Your task to perform on an android device: open app "Speedtest by Ookla" (install if not already installed) and go to login screen Image 0: 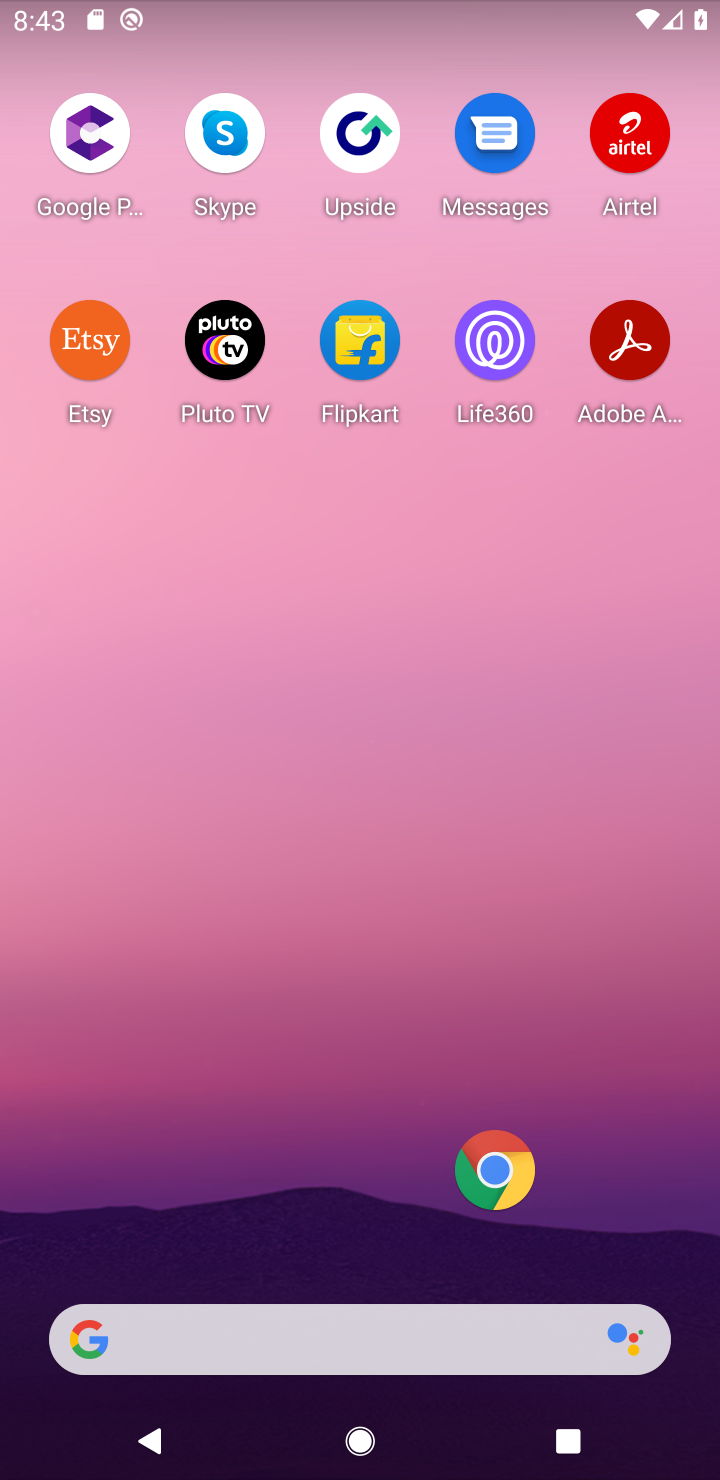
Step 0: drag from (286, 1223) to (474, 113)
Your task to perform on an android device: open app "Speedtest by Ookla" (install if not already installed) and go to login screen Image 1: 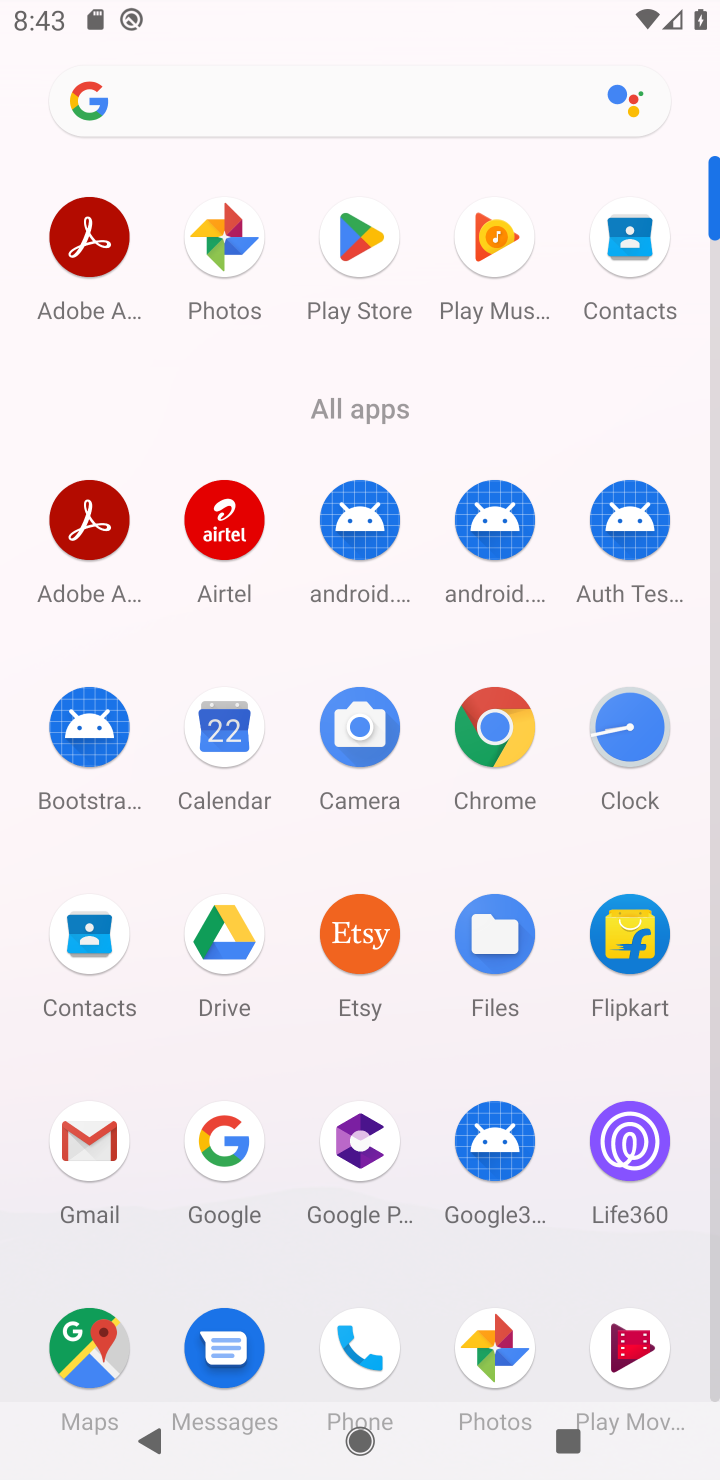
Step 1: click (364, 245)
Your task to perform on an android device: open app "Speedtest by Ookla" (install if not already installed) and go to login screen Image 2: 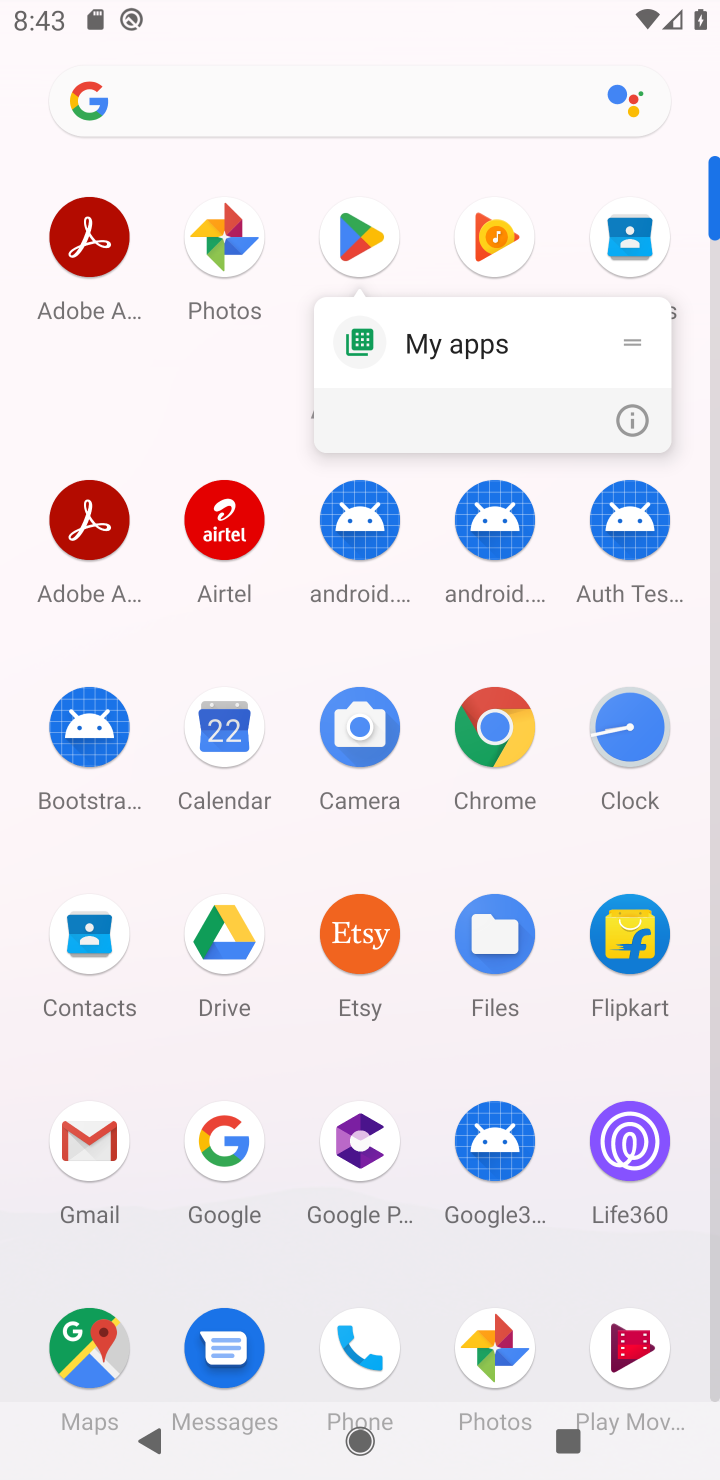
Step 2: click (362, 213)
Your task to perform on an android device: open app "Speedtest by Ookla" (install if not already installed) and go to login screen Image 3: 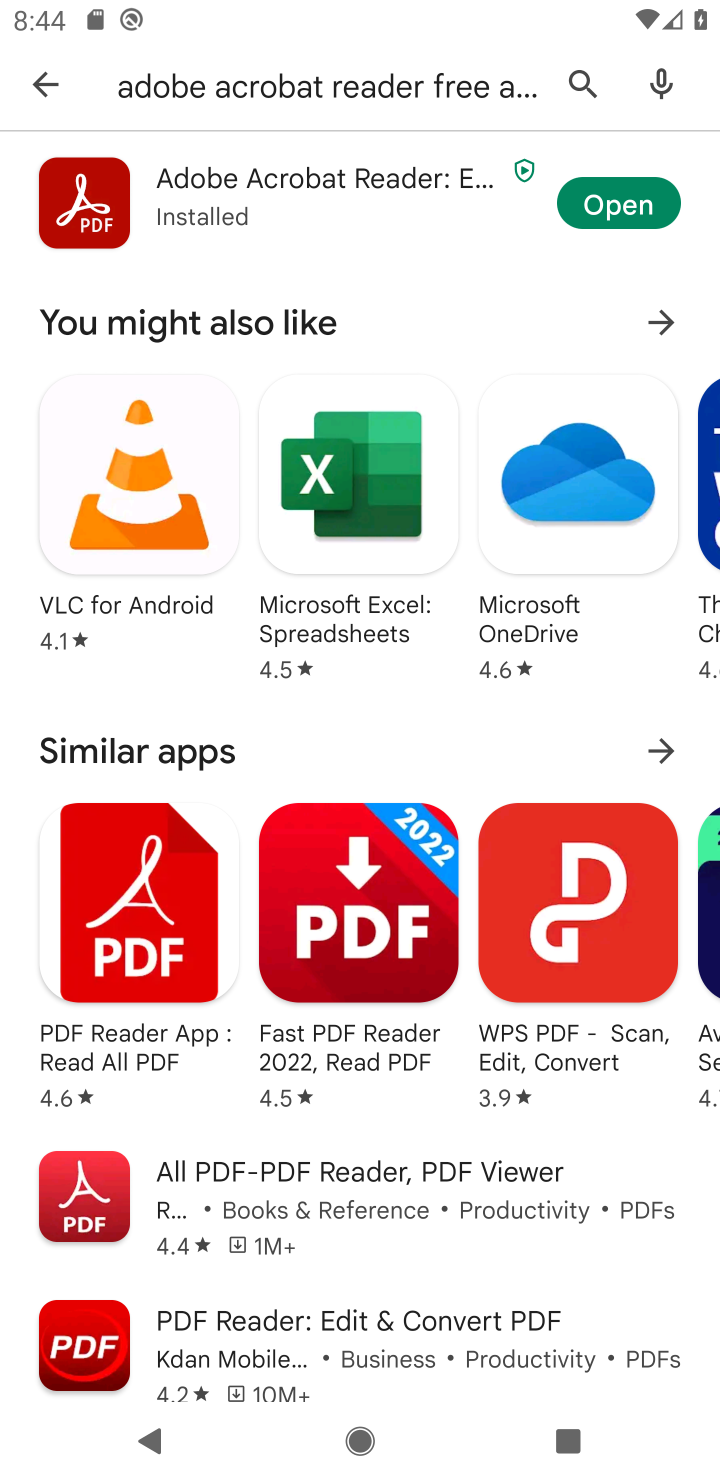
Step 3: click (572, 87)
Your task to perform on an android device: open app "Speedtest by Ookla" (install if not already installed) and go to login screen Image 4: 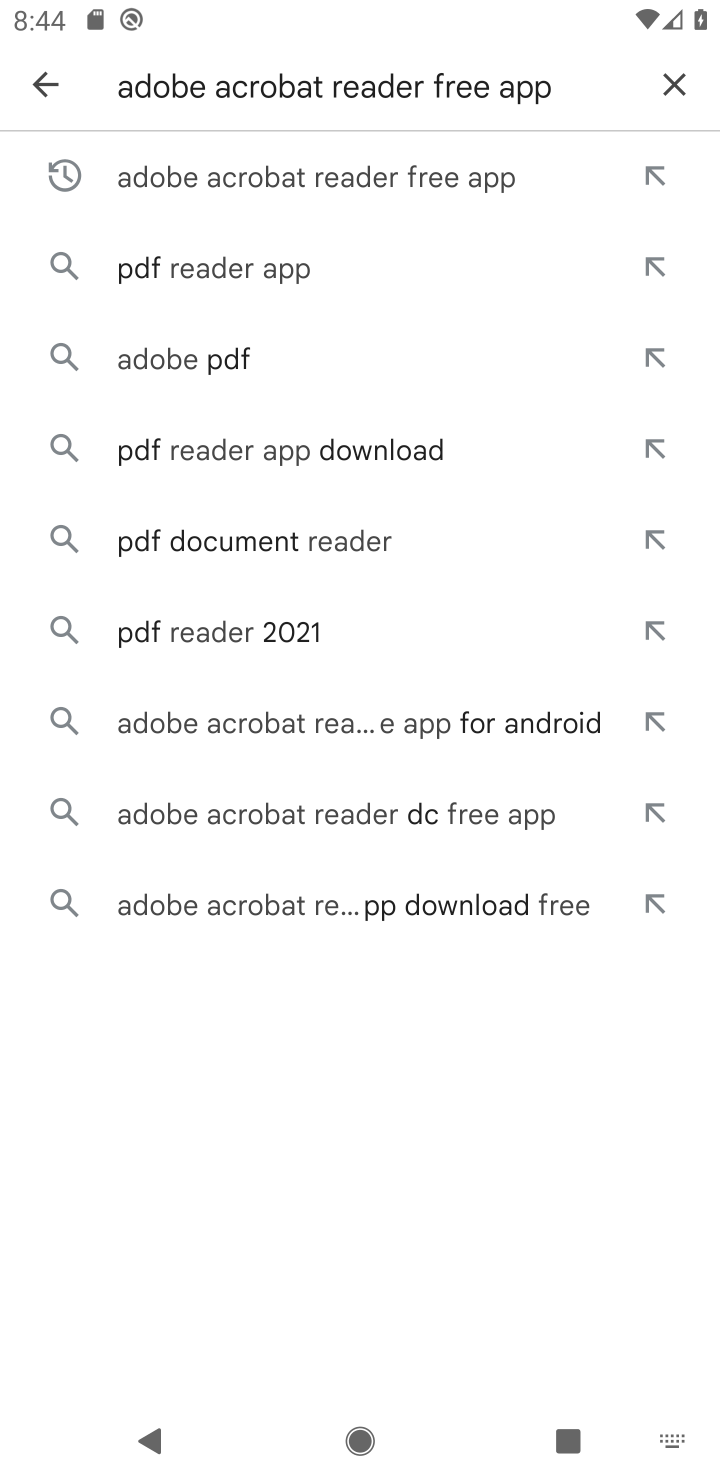
Step 4: click (672, 81)
Your task to perform on an android device: open app "Speedtest by Ookla" (install if not already installed) and go to login screen Image 5: 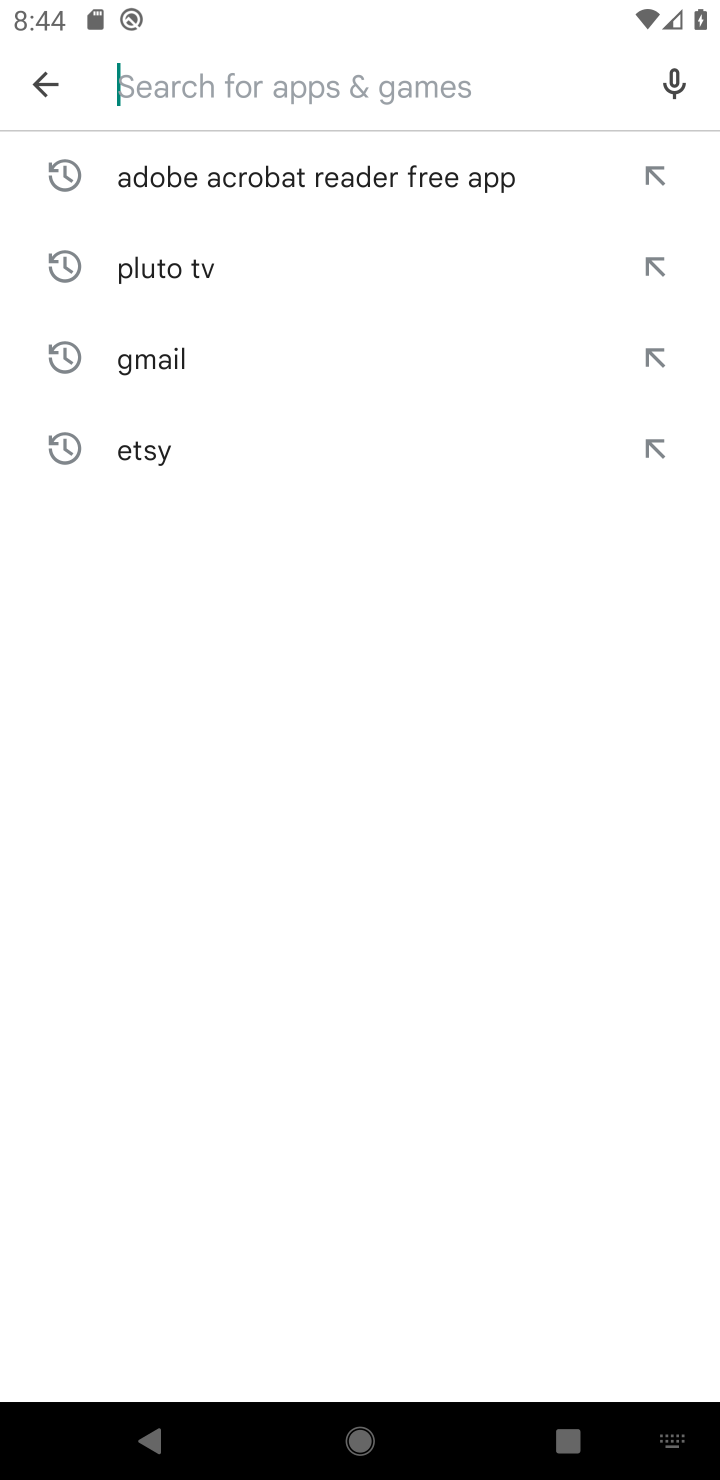
Step 5: click (328, 97)
Your task to perform on an android device: open app "Speedtest by Ookla" (install if not already installed) and go to login screen Image 6: 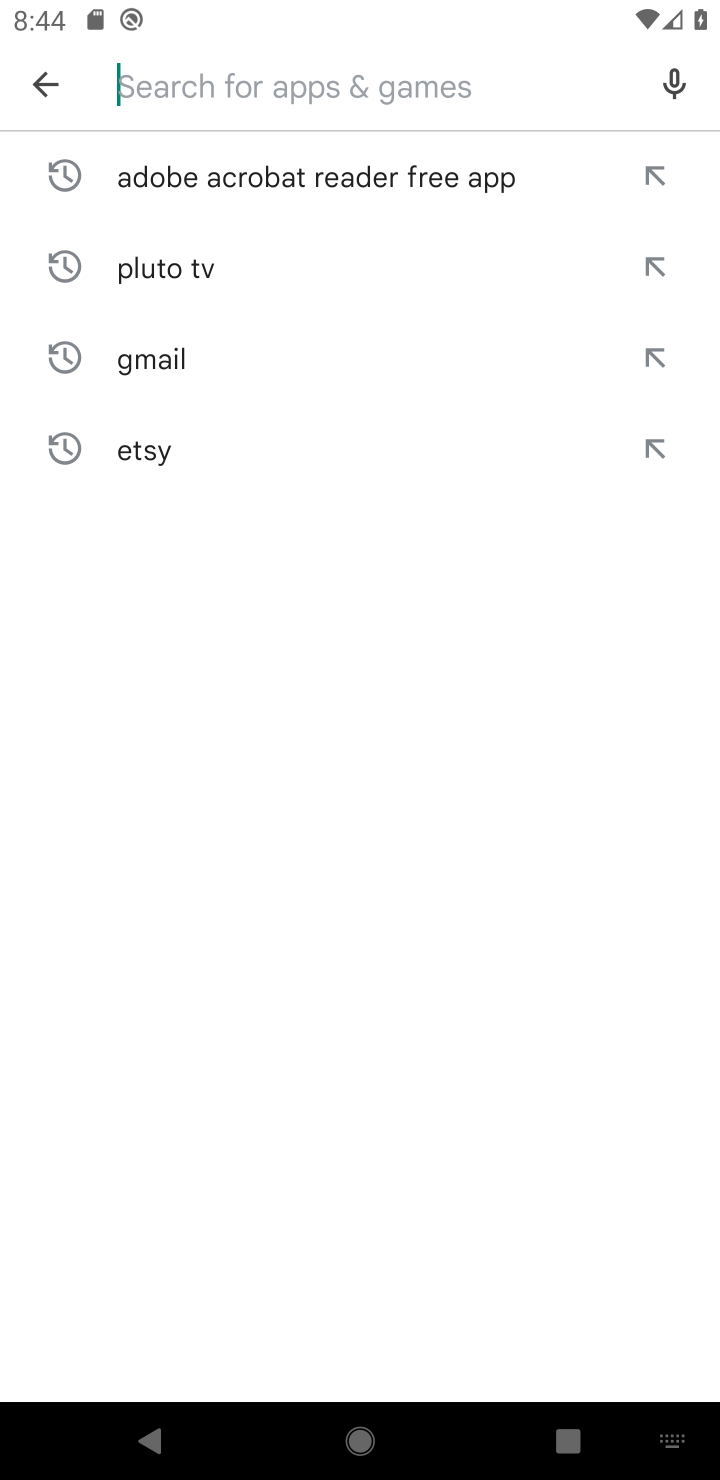
Step 6: click (223, 105)
Your task to perform on an android device: open app "Speedtest by Ookla" (install if not already installed) and go to login screen Image 7: 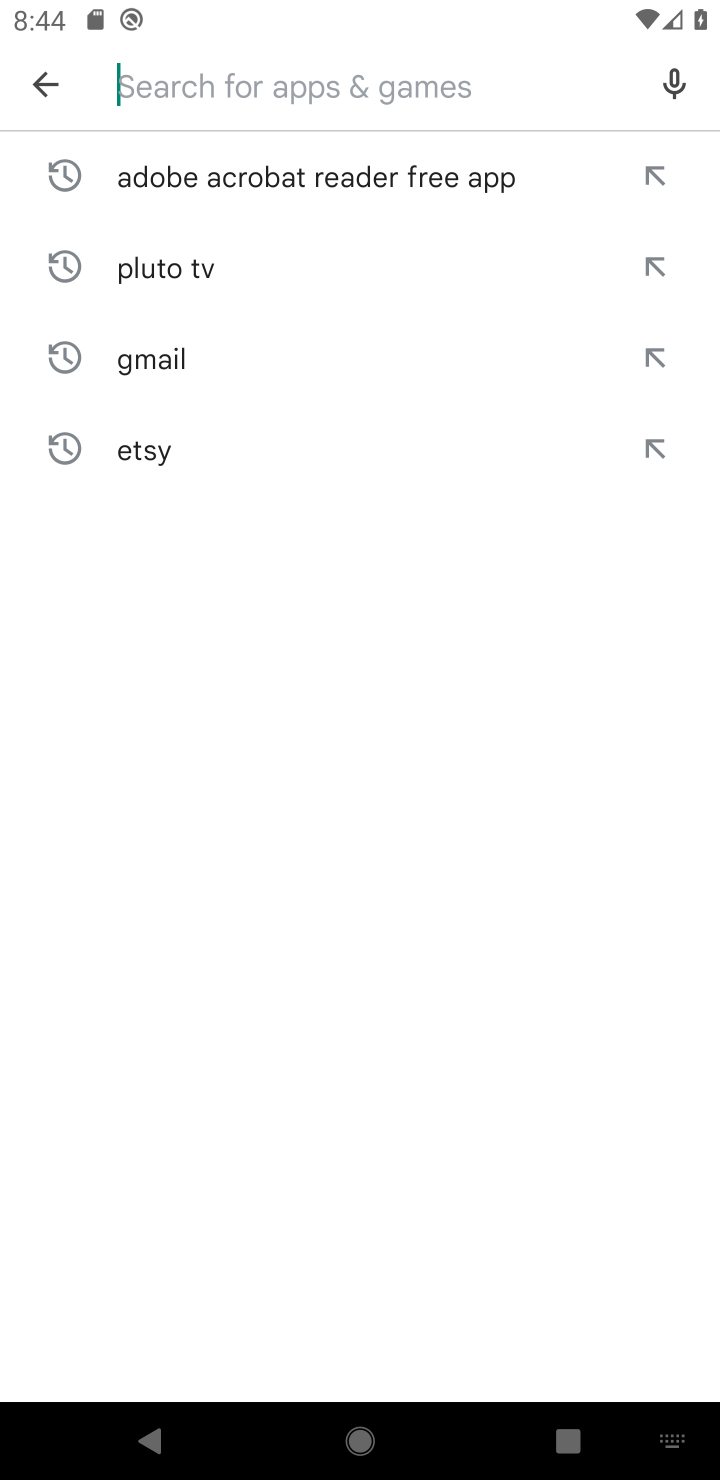
Step 7: type "speed test"
Your task to perform on an android device: open app "Speedtest by Ookla" (install if not already installed) and go to login screen Image 8: 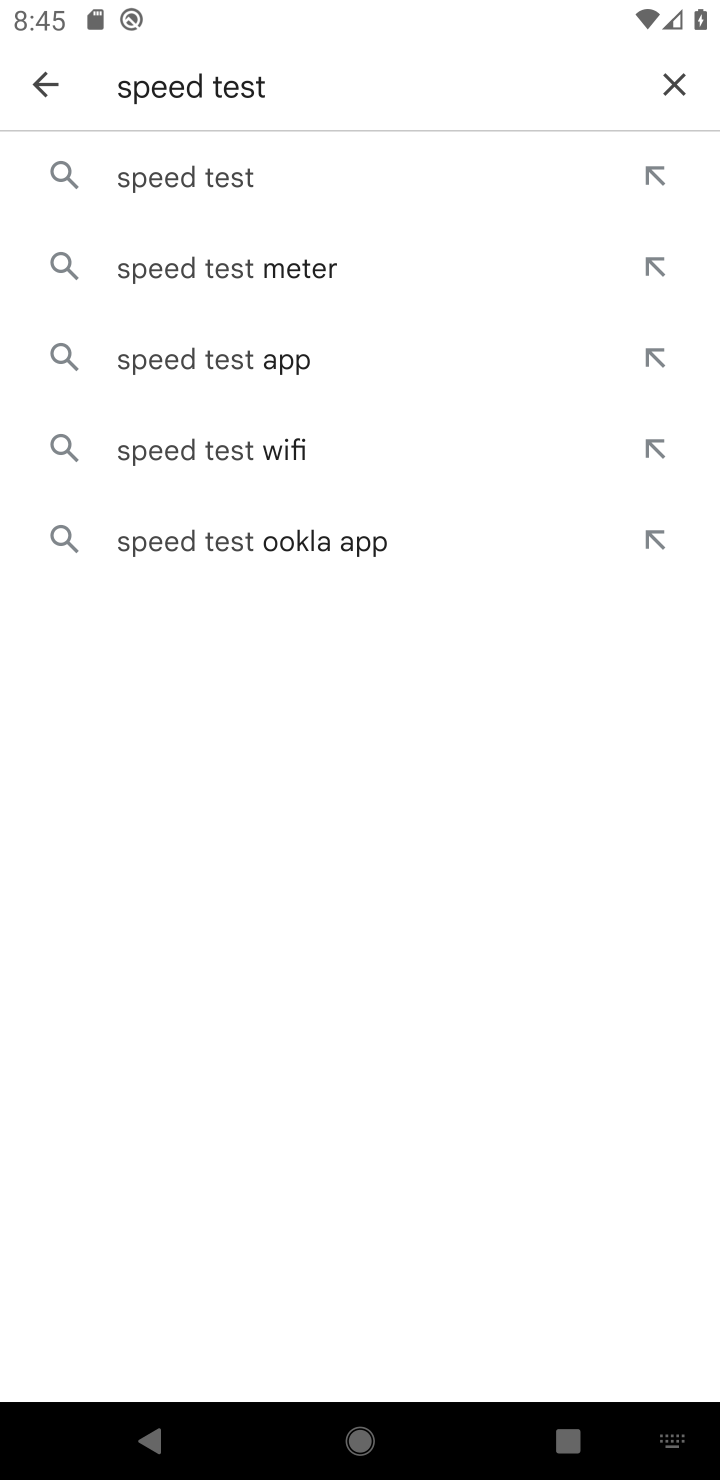
Step 8: click (237, 174)
Your task to perform on an android device: open app "Speedtest by Ookla" (install if not already installed) and go to login screen Image 9: 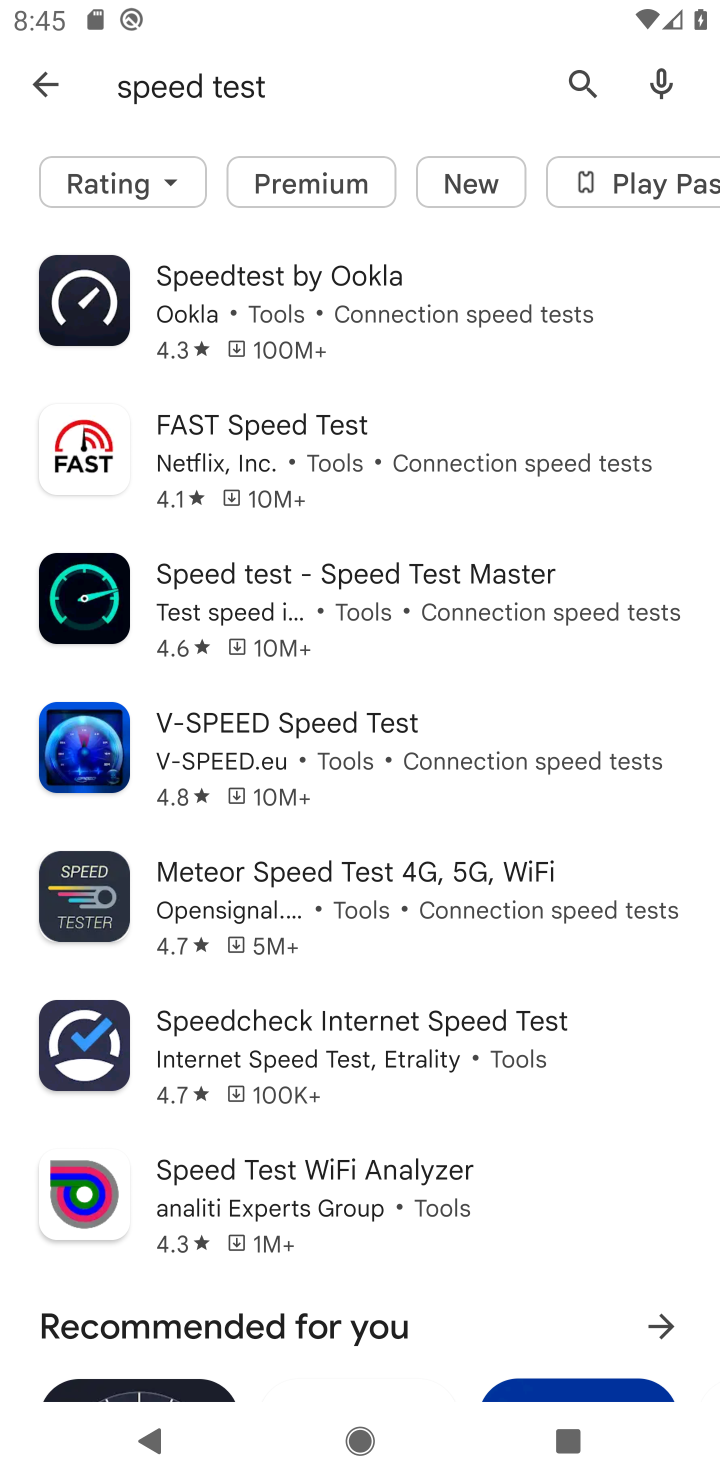
Step 9: click (295, 254)
Your task to perform on an android device: open app "Speedtest by Ookla" (install if not already installed) and go to login screen Image 10: 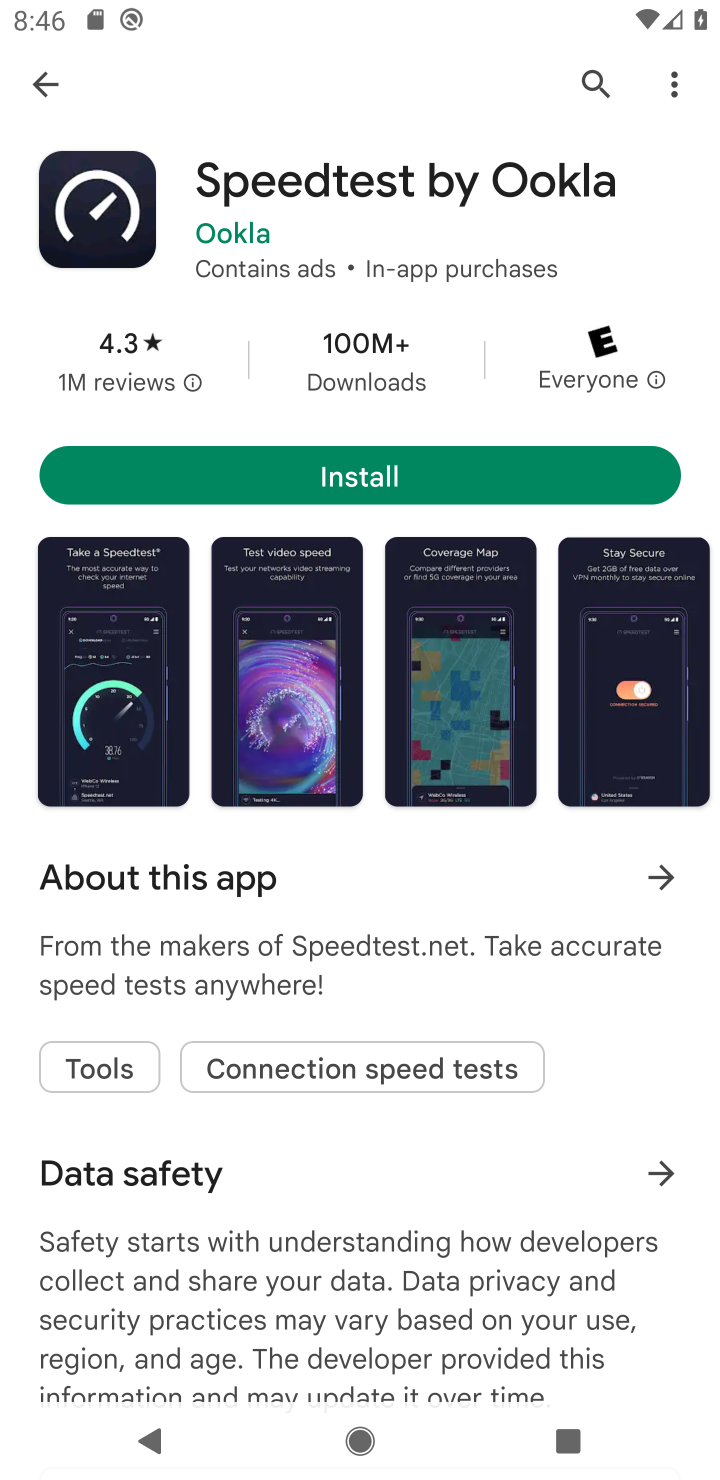
Step 10: click (431, 483)
Your task to perform on an android device: open app "Speedtest by Ookla" (install if not already installed) and go to login screen Image 11: 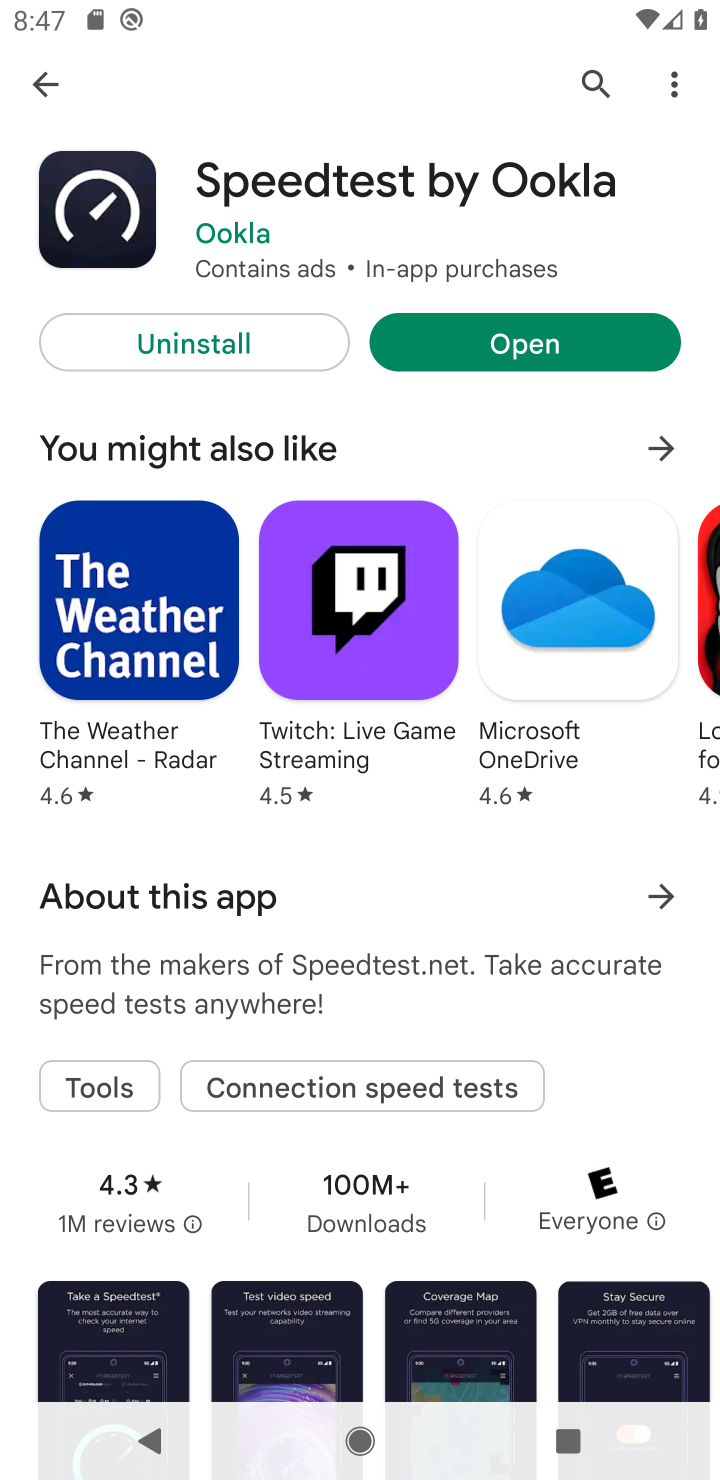
Step 11: click (504, 352)
Your task to perform on an android device: open app "Speedtest by Ookla" (install if not already installed) and go to login screen Image 12: 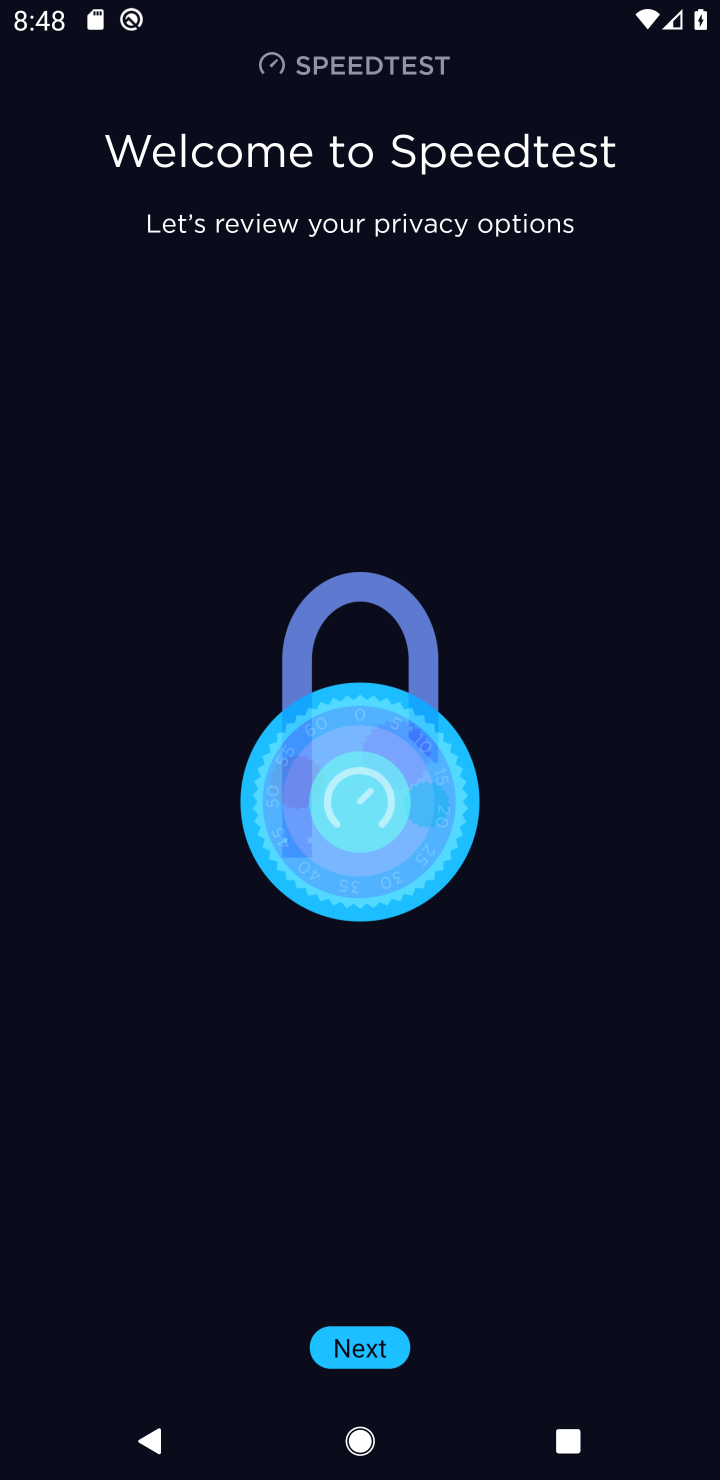
Step 12: click (364, 1351)
Your task to perform on an android device: open app "Speedtest by Ookla" (install if not already installed) and go to login screen Image 13: 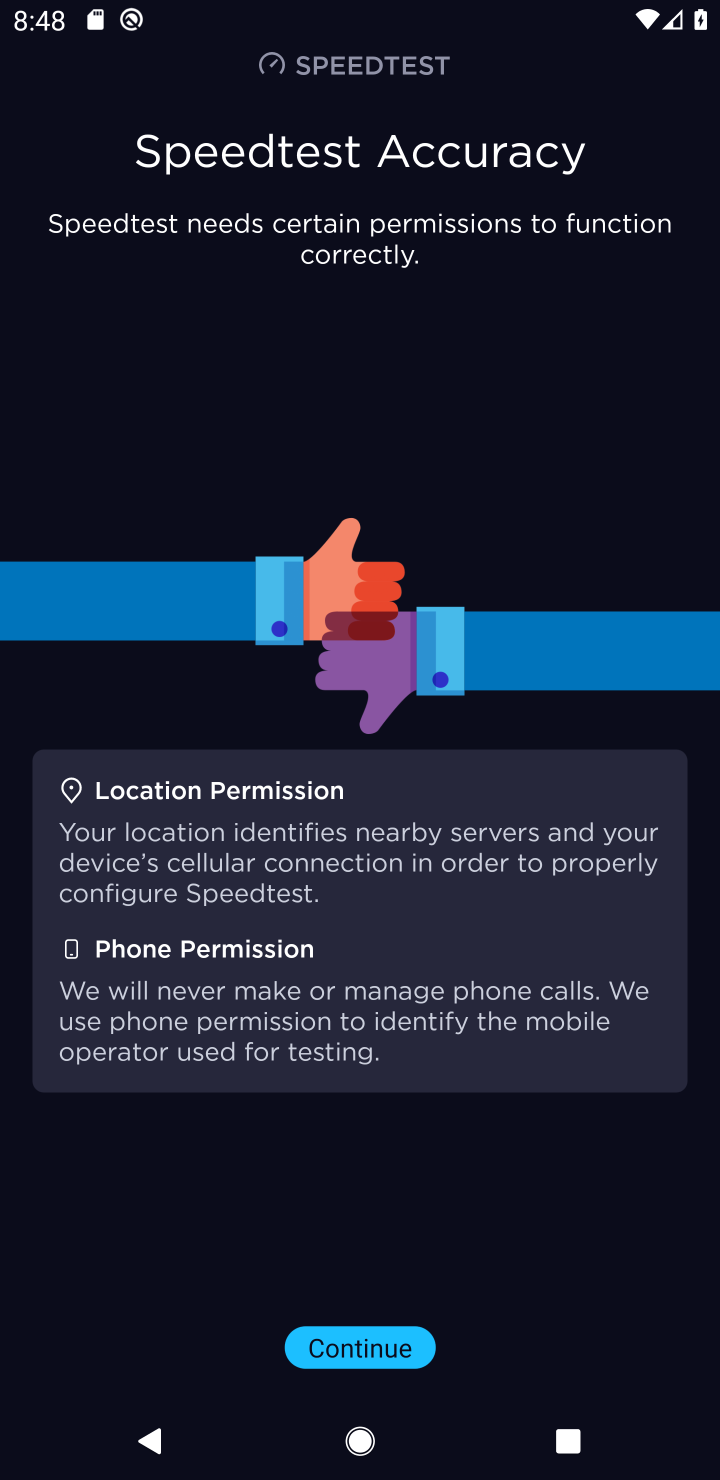
Step 13: click (358, 1346)
Your task to perform on an android device: open app "Speedtest by Ookla" (install if not already installed) and go to login screen Image 14: 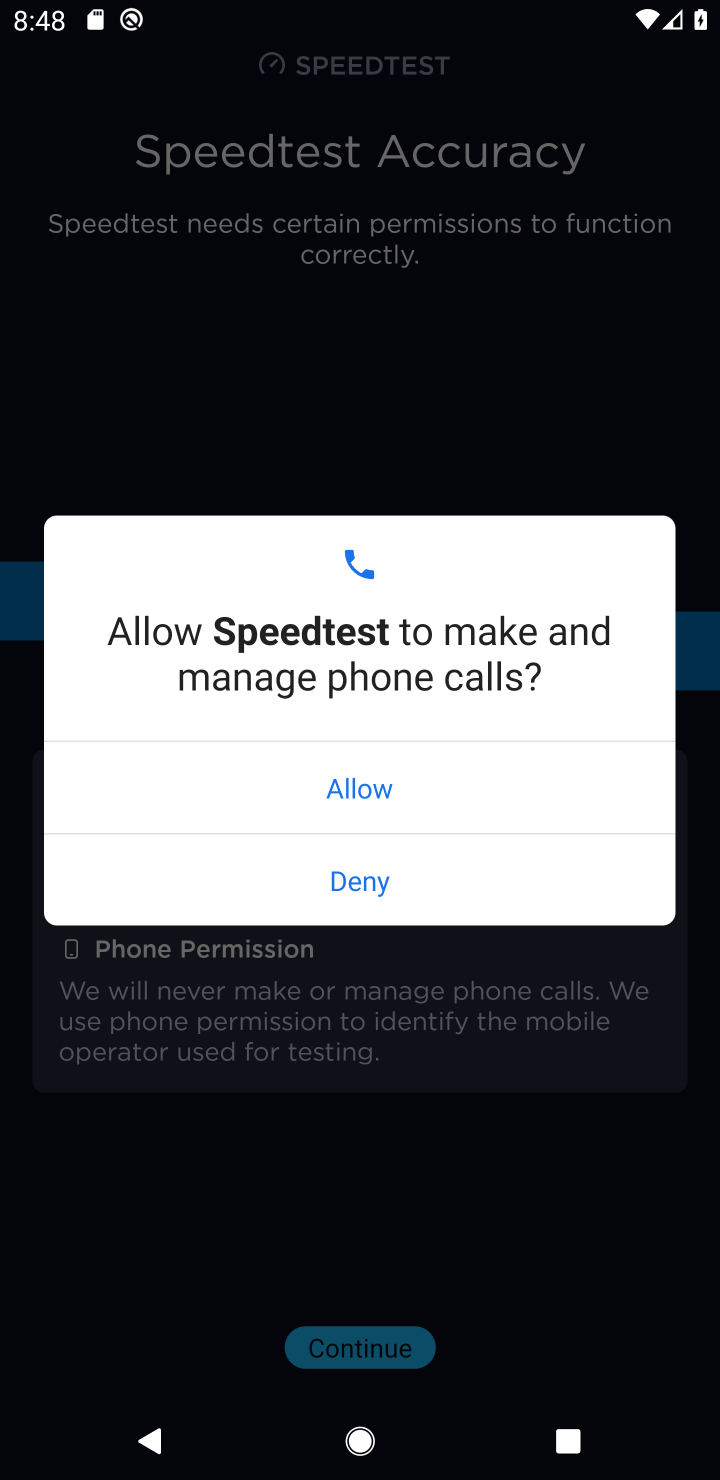
Step 14: task complete